Your task to perform on an android device: toggle javascript in the chrome app Image 0: 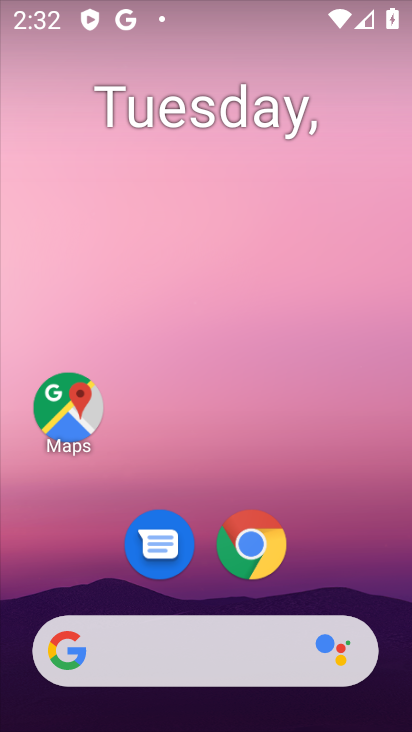
Step 0: click (251, 538)
Your task to perform on an android device: toggle javascript in the chrome app Image 1: 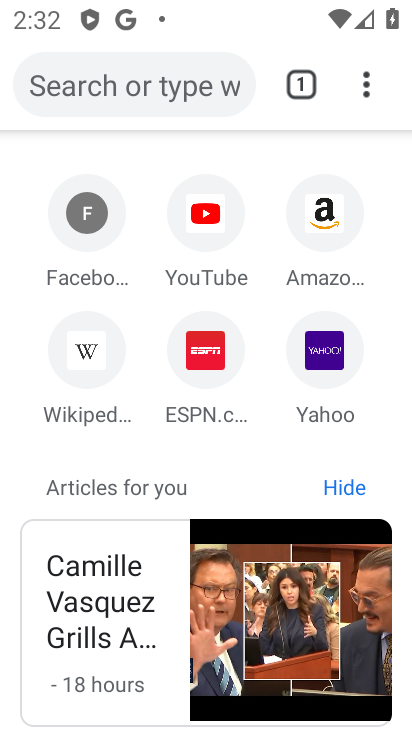
Step 1: drag from (364, 77) to (113, 588)
Your task to perform on an android device: toggle javascript in the chrome app Image 2: 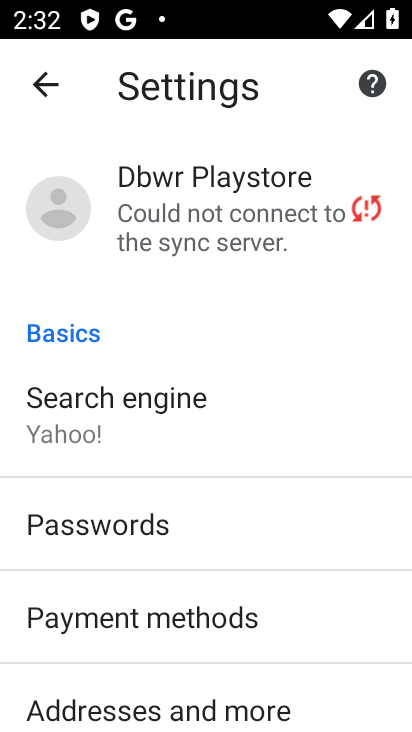
Step 2: drag from (147, 682) to (301, 185)
Your task to perform on an android device: toggle javascript in the chrome app Image 3: 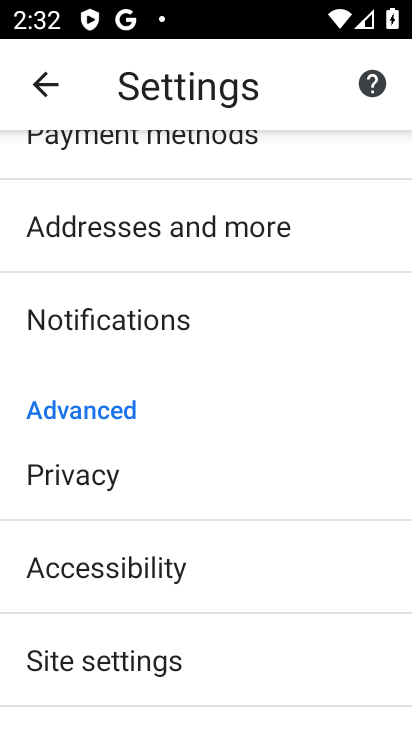
Step 3: drag from (137, 594) to (222, 243)
Your task to perform on an android device: toggle javascript in the chrome app Image 4: 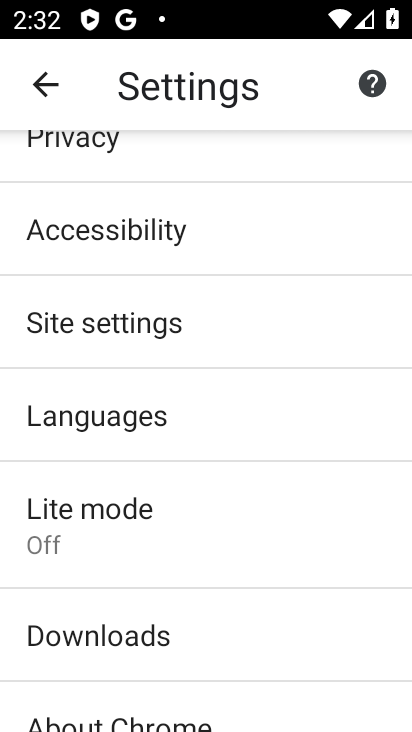
Step 4: click (149, 331)
Your task to perform on an android device: toggle javascript in the chrome app Image 5: 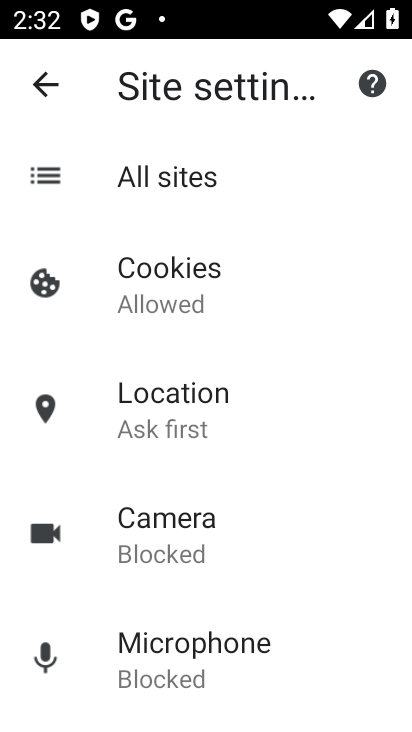
Step 5: drag from (161, 613) to (291, 93)
Your task to perform on an android device: toggle javascript in the chrome app Image 6: 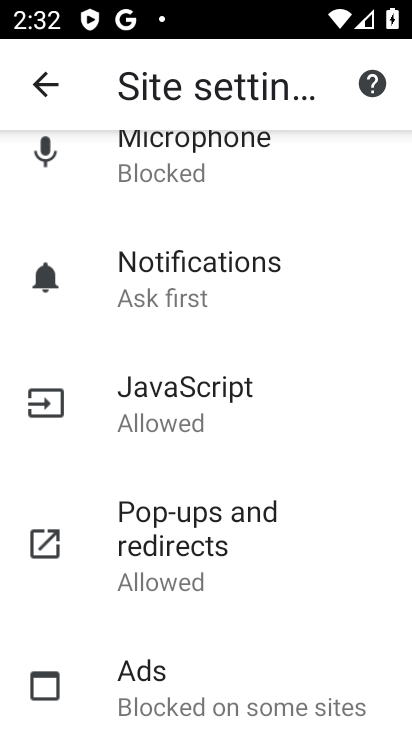
Step 6: click (171, 374)
Your task to perform on an android device: toggle javascript in the chrome app Image 7: 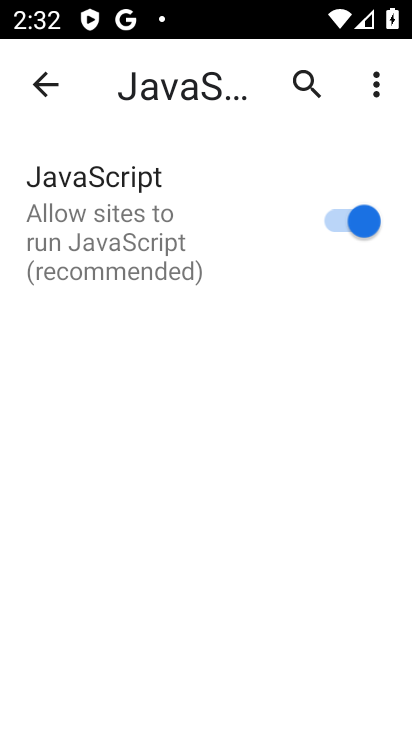
Step 7: click (351, 216)
Your task to perform on an android device: toggle javascript in the chrome app Image 8: 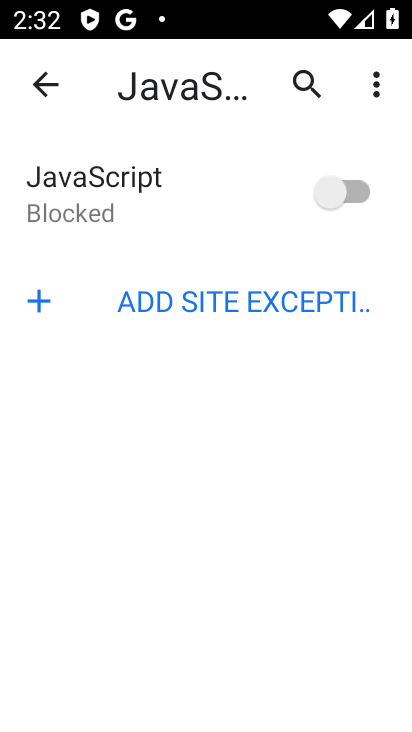
Step 8: task complete